Your task to perform on an android device: set default search engine in the chrome app Image 0: 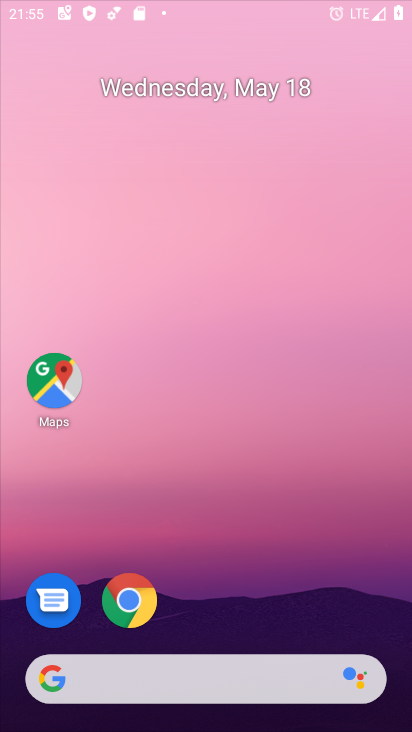
Step 0: click (312, 13)
Your task to perform on an android device: set default search engine in the chrome app Image 1: 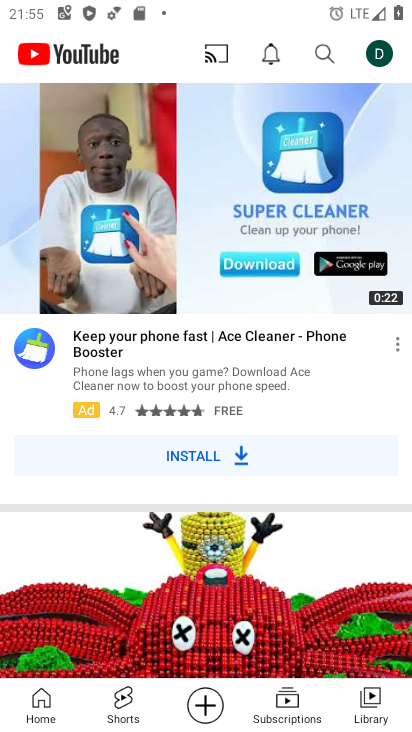
Step 1: press home button
Your task to perform on an android device: set default search engine in the chrome app Image 2: 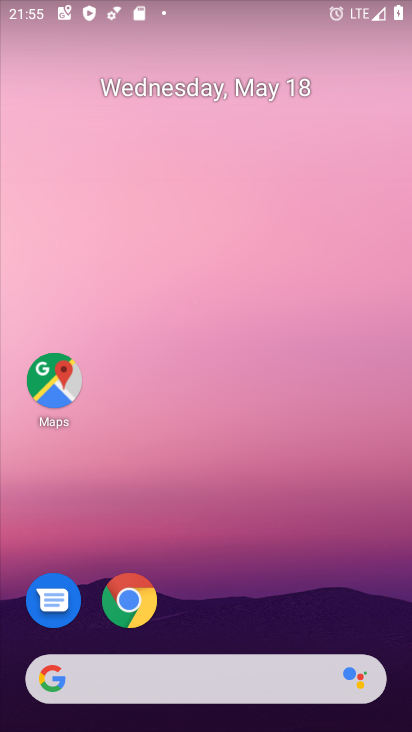
Step 2: click (118, 605)
Your task to perform on an android device: set default search engine in the chrome app Image 3: 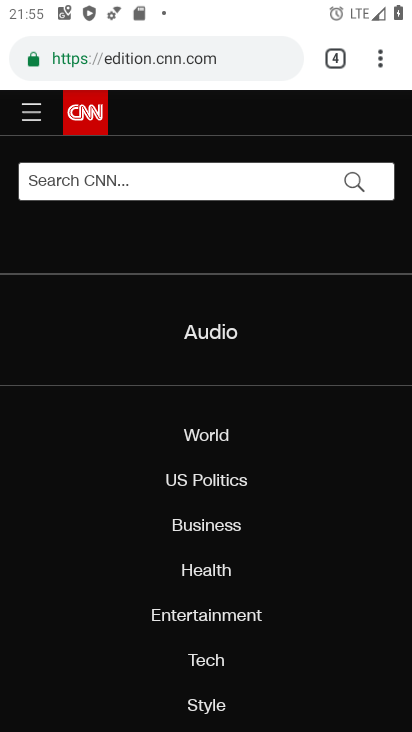
Step 3: click (378, 53)
Your task to perform on an android device: set default search engine in the chrome app Image 4: 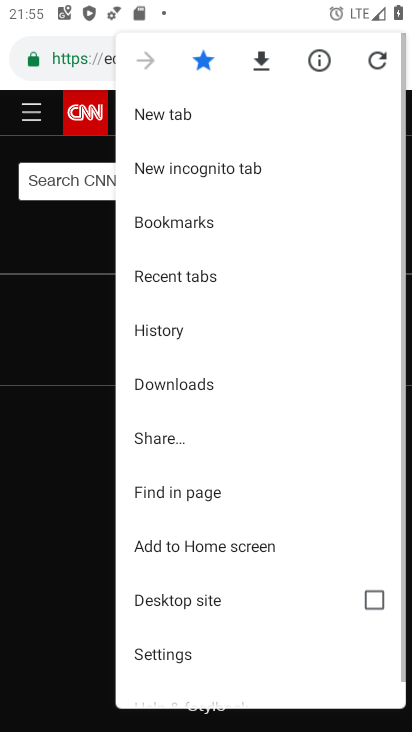
Step 4: click (189, 669)
Your task to perform on an android device: set default search engine in the chrome app Image 5: 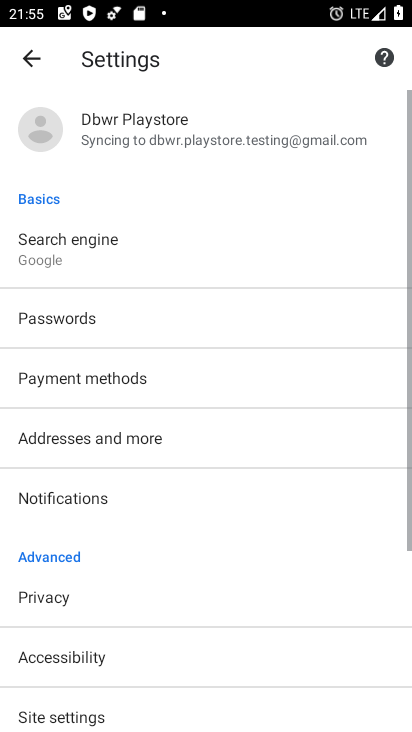
Step 5: click (83, 261)
Your task to perform on an android device: set default search engine in the chrome app Image 6: 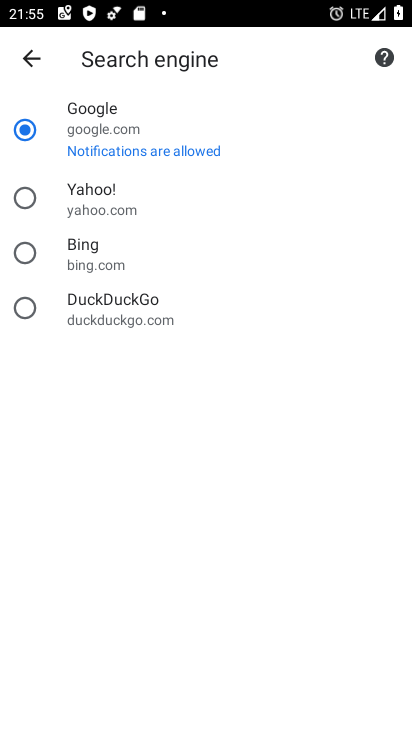
Step 6: click (31, 191)
Your task to perform on an android device: set default search engine in the chrome app Image 7: 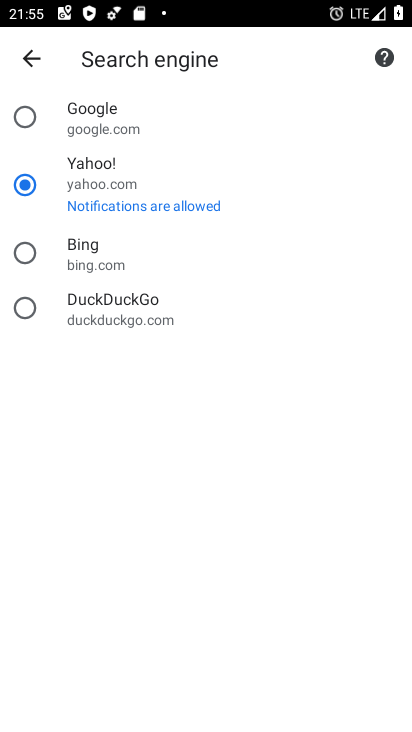
Step 7: task complete